Your task to perform on an android device: open chrome privacy settings Image 0: 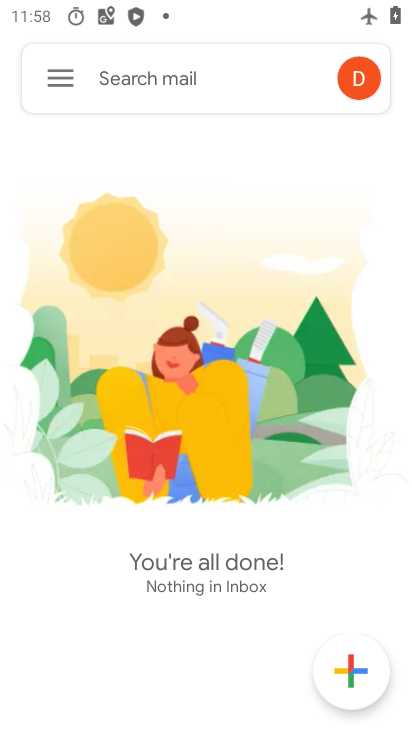
Step 0: press home button
Your task to perform on an android device: open chrome privacy settings Image 1: 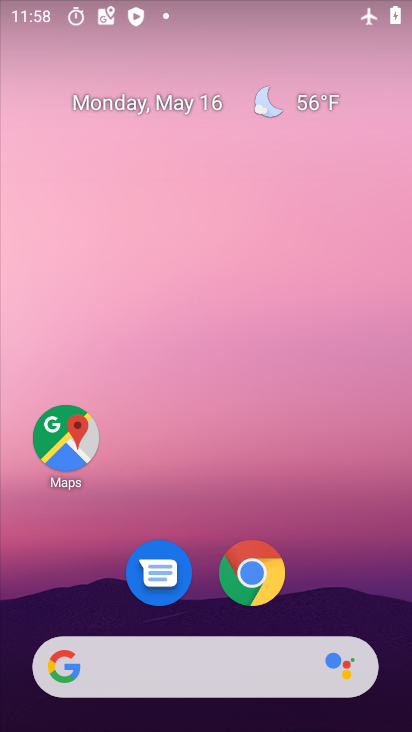
Step 1: drag from (231, 722) to (231, 6)
Your task to perform on an android device: open chrome privacy settings Image 2: 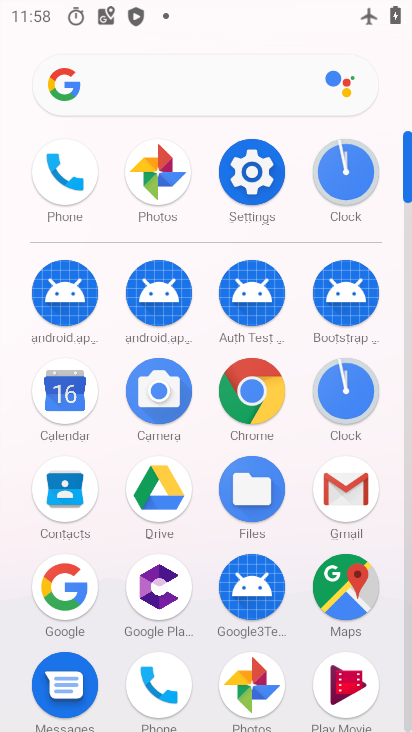
Step 2: click (249, 192)
Your task to perform on an android device: open chrome privacy settings Image 3: 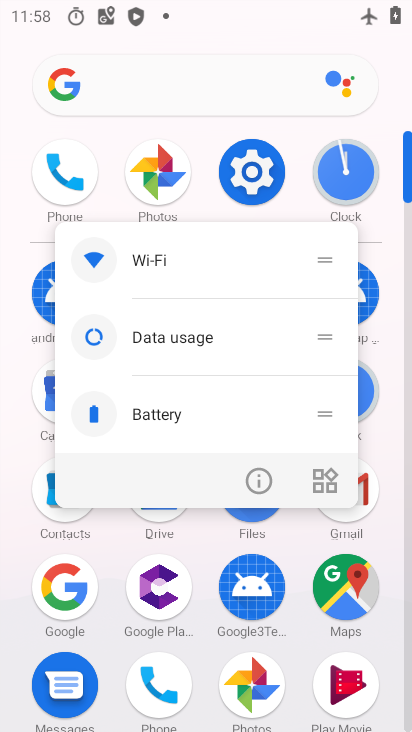
Step 3: press home button
Your task to perform on an android device: open chrome privacy settings Image 4: 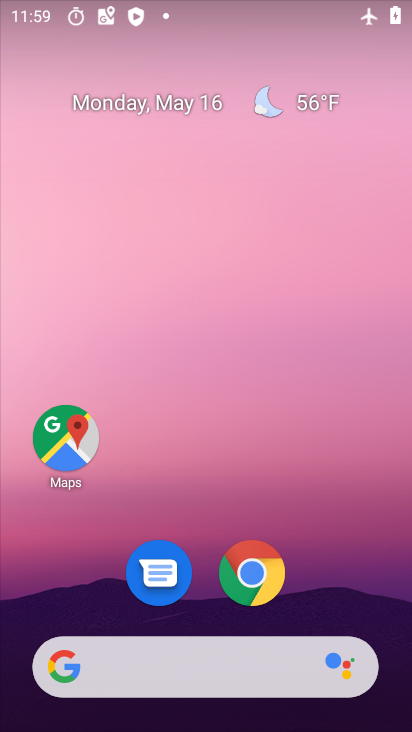
Step 4: click (253, 580)
Your task to perform on an android device: open chrome privacy settings Image 5: 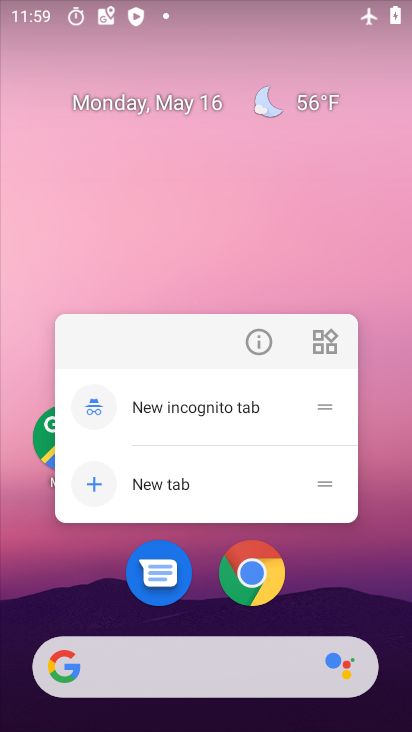
Step 5: click (251, 583)
Your task to perform on an android device: open chrome privacy settings Image 6: 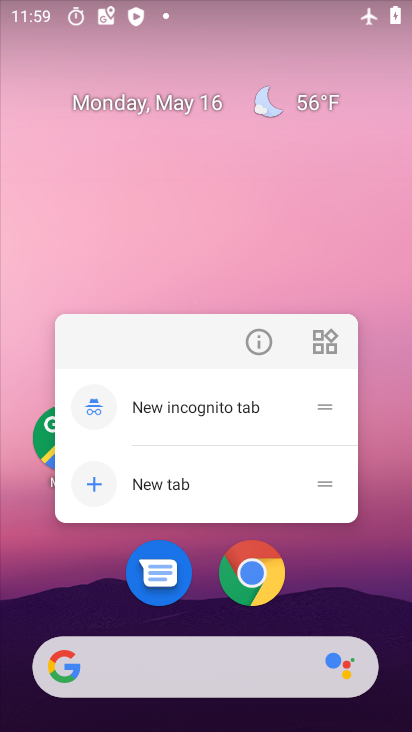
Step 6: click (251, 583)
Your task to perform on an android device: open chrome privacy settings Image 7: 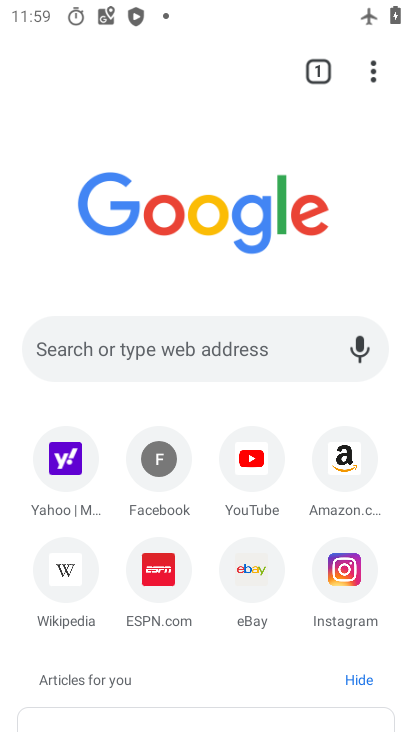
Step 7: click (368, 74)
Your task to perform on an android device: open chrome privacy settings Image 8: 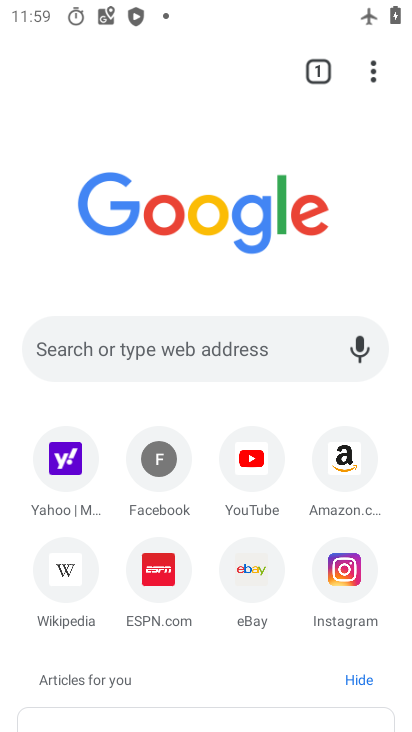
Step 8: click (367, 73)
Your task to perform on an android device: open chrome privacy settings Image 9: 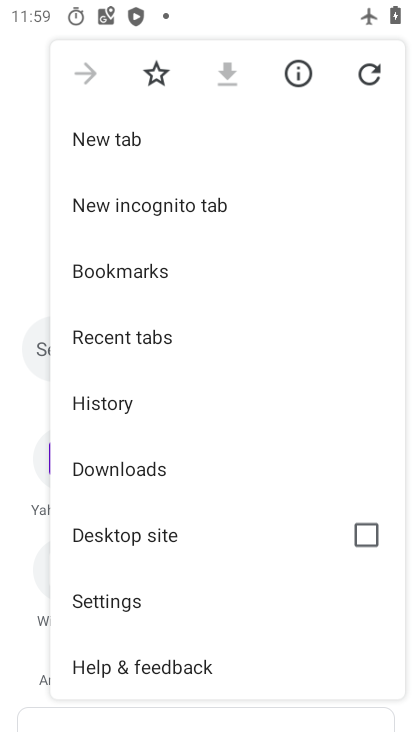
Step 9: click (144, 610)
Your task to perform on an android device: open chrome privacy settings Image 10: 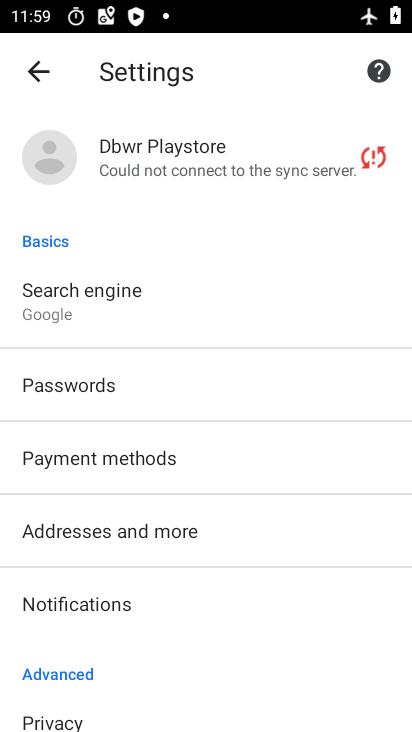
Step 10: click (109, 719)
Your task to perform on an android device: open chrome privacy settings Image 11: 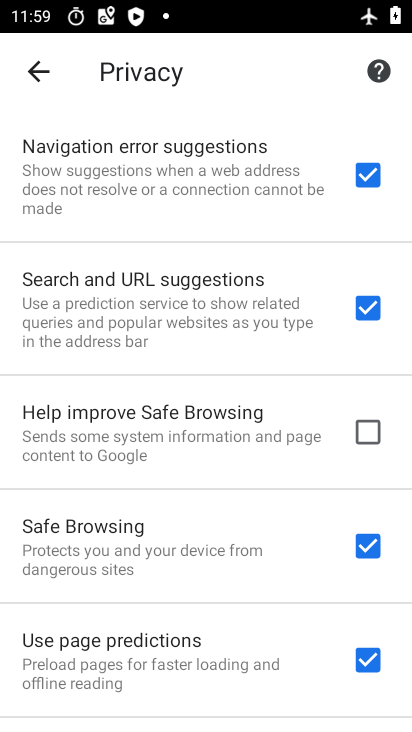
Step 11: task complete